Your task to perform on an android device: open a bookmark in the chrome app Image 0: 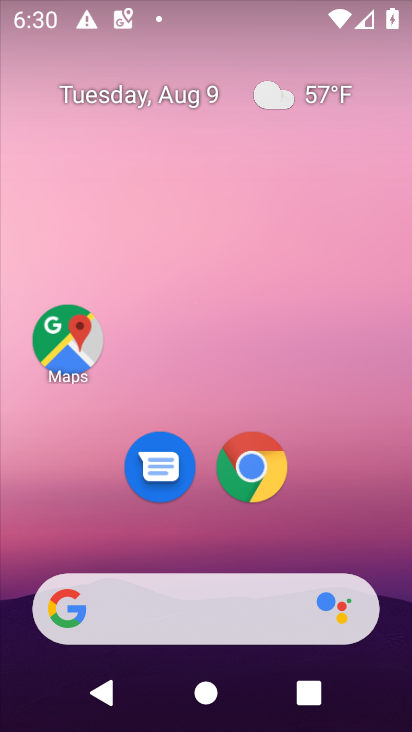
Step 0: click (249, 466)
Your task to perform on an android device: open a bookmark in the chrome app Image 1: 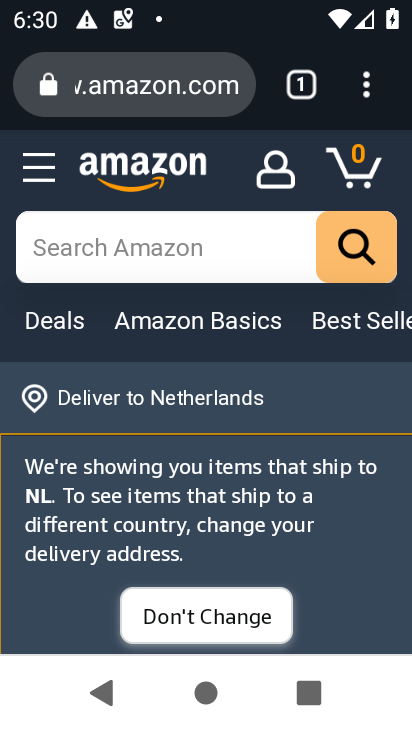
Step 1: click (366, 91)
Your task to perform on an android device: open a bookmark in the chrome app Image 2: 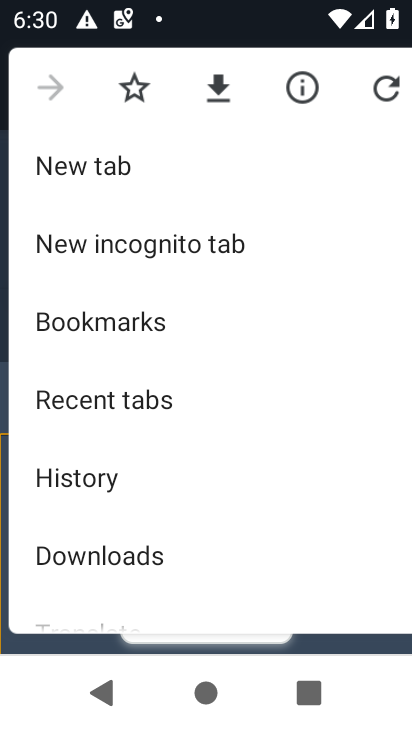
Step 2: click (141, 331)
Your task to perform on an android device: open a bookmark in the chrome app Image 3: 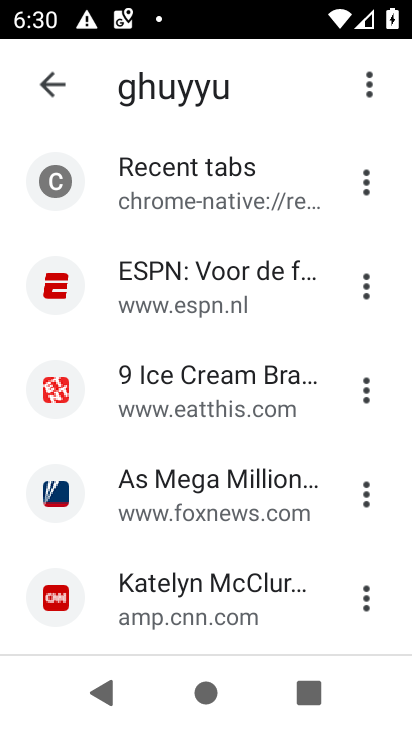
Step 3: click (158, 303)
Your task to perform on an android device: open a bookmark in the chrome app Image 4: 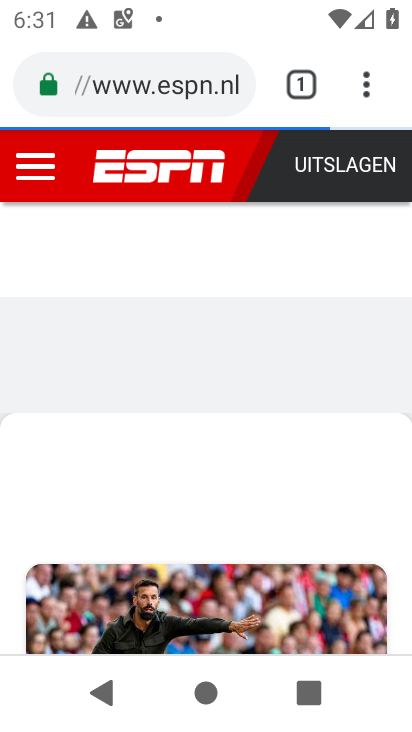
Step 4: task complete